Your task to perform on an android device: move an email to a new category in the gmail app Image 0: 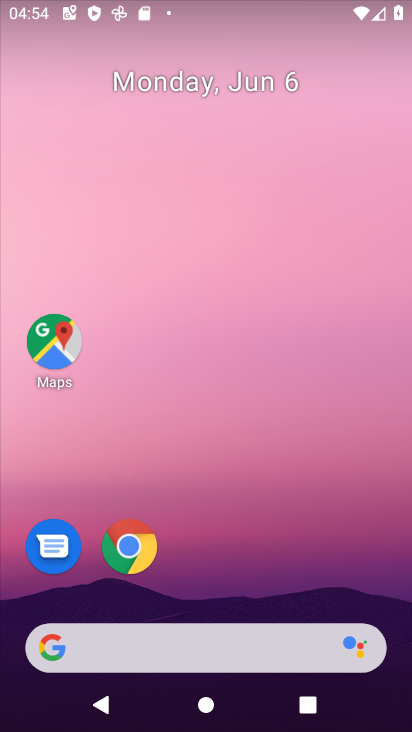
Step 0: drag from (300, 579) to (235, 145)
Your task to perform on an android device: move an email to a new category in the gmail app Image 1: 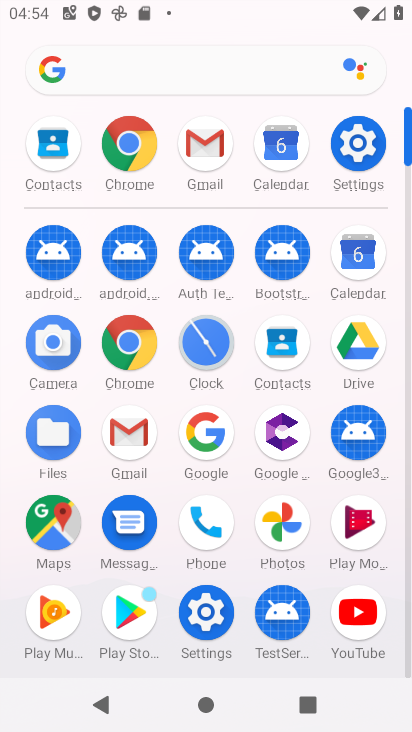
Step 1: click (195, 153)
Your task to perform on an android device: move an email to a new category in the gmail app Image 2: 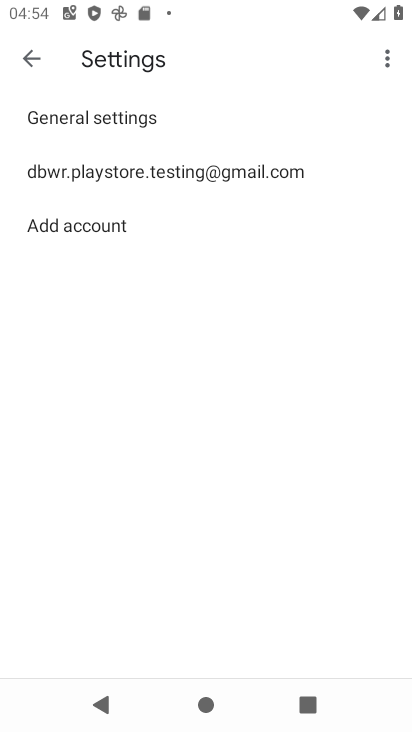
Step 2: task complete